Your task to perform on an android device: check data usage Image 0: 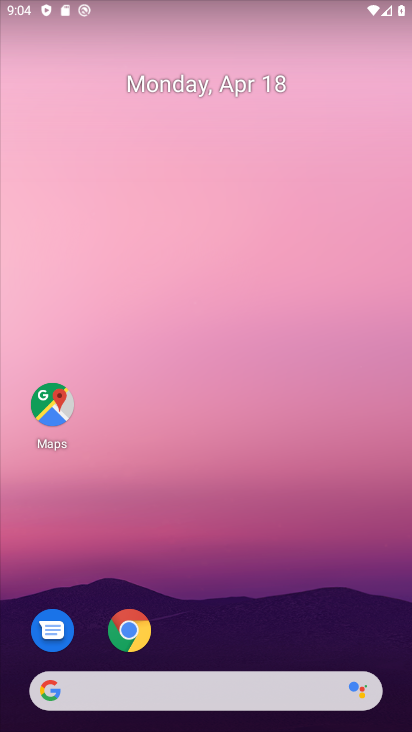
Step 0: drag from (238, 534) to (276, 147)
Your task to perform on an android device: check data usage Image 1: 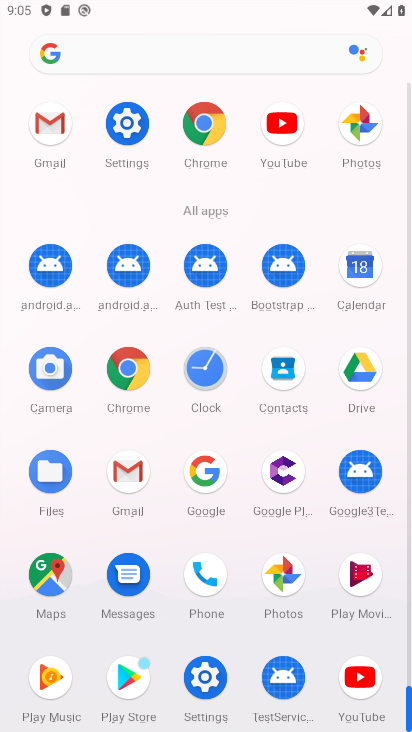
Step 1: click (132, 129)
Your task to perform on an android device: check data usage Image 2: 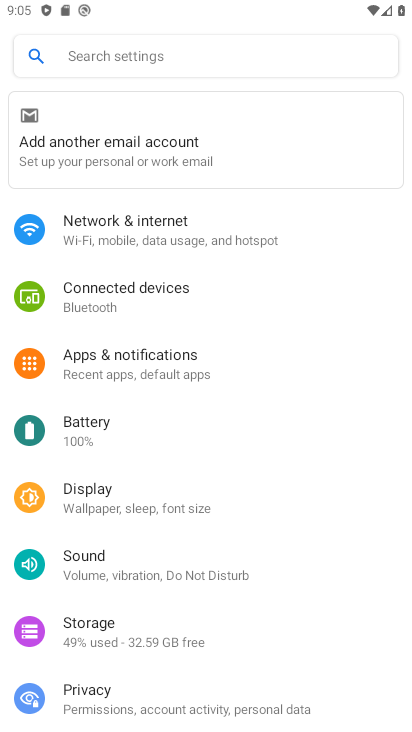
Step 2: click (246, 231)
Your task to perform on an android device: check data usage Image 3: 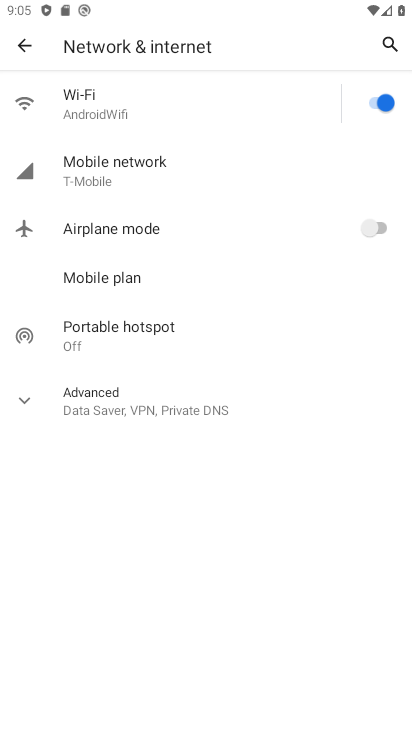
Step 3: click (204, 166)
Your task to perform on an android device: check data usage Image 4: 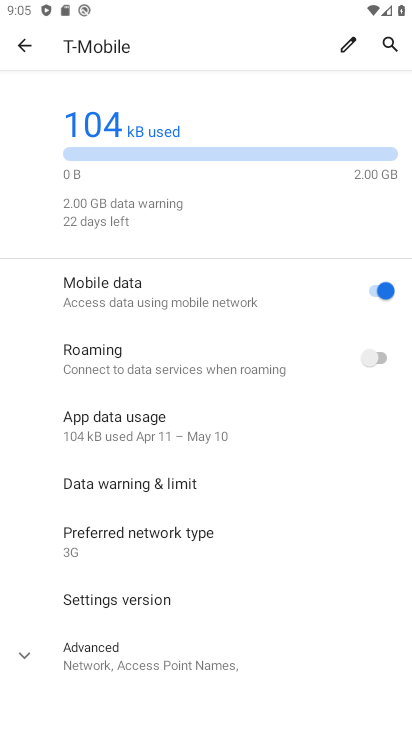
Step 4: task complete